Your task to perform on an android device: How much does a 2 bedroom apartment rent for in Boston? Image 0: 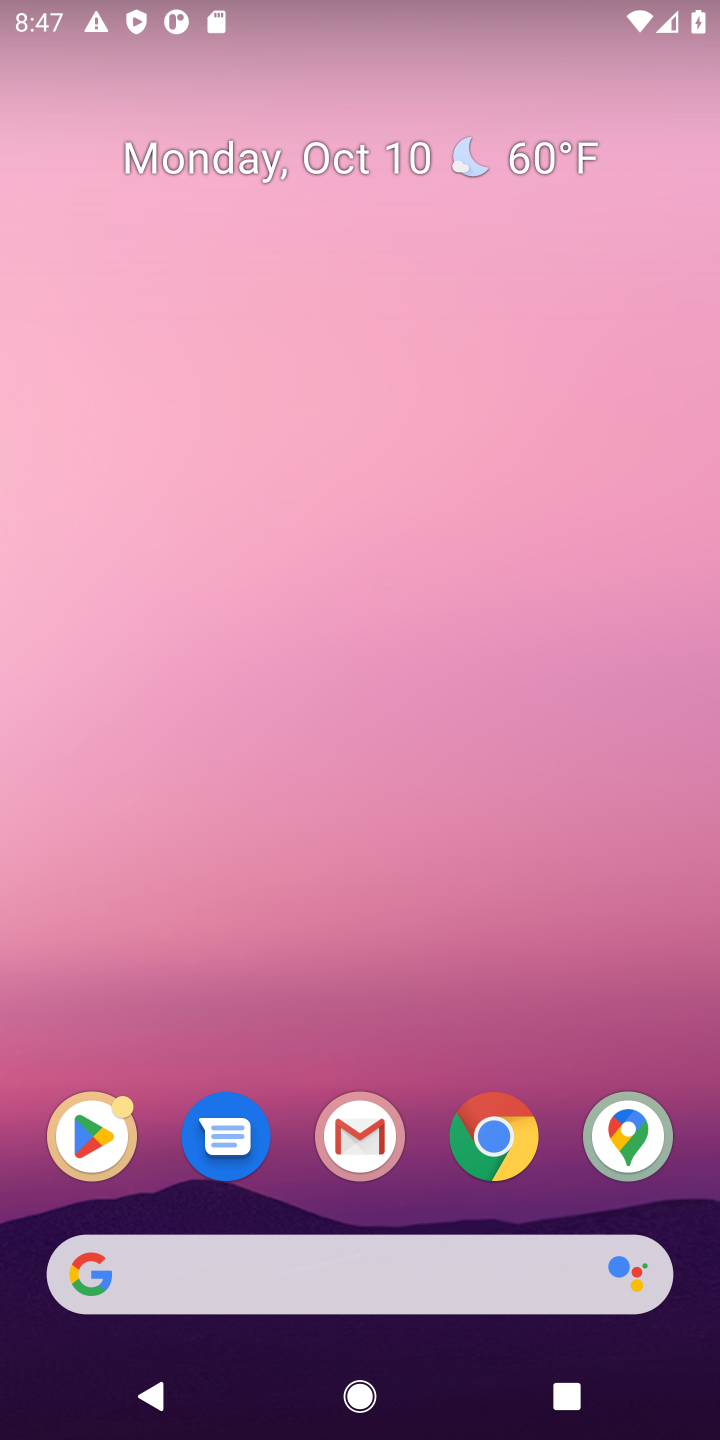
Step 0: click (149, 1275)
Your task to perform on an android device: How much does a 2 bedroom apartment rent for in Boston? Image 1: 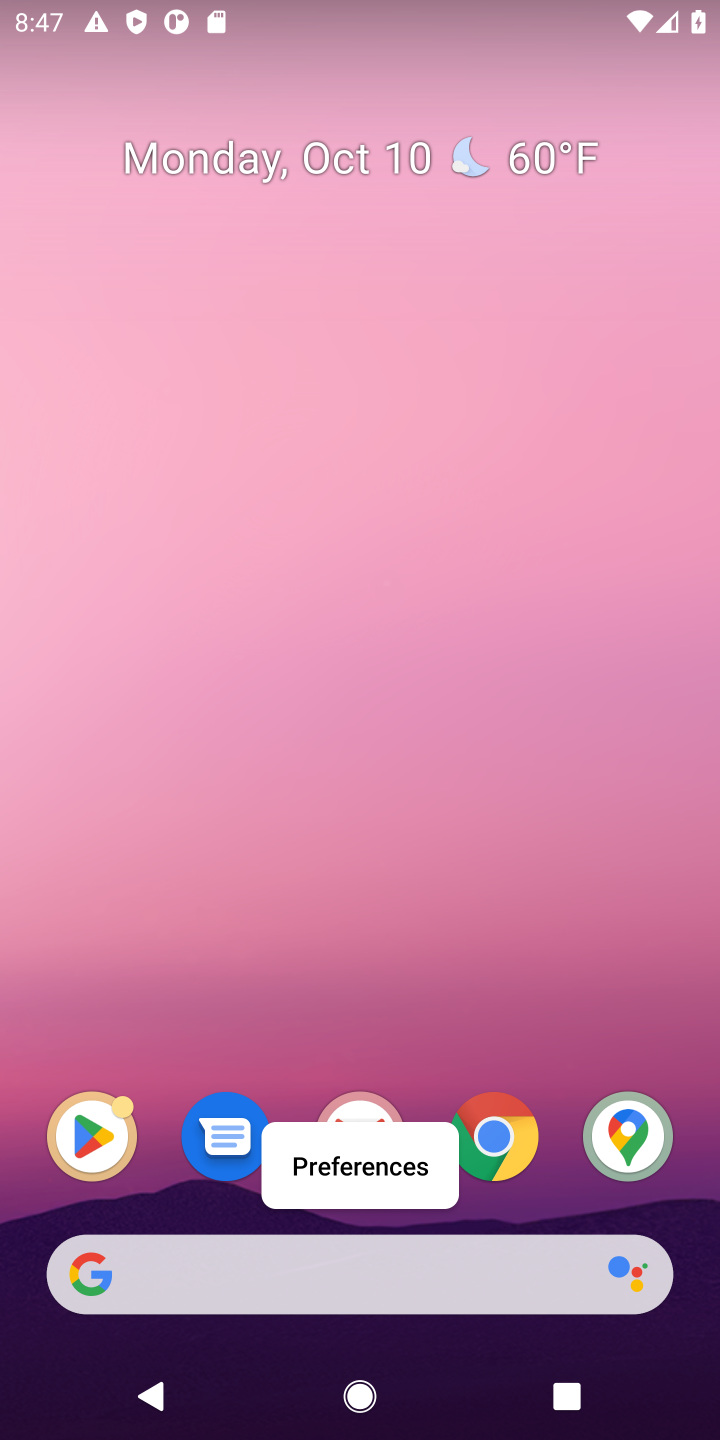
Step 1: click (99, 1265)
Your task to perform on an android device: How much does a 2 bedroom apartment rent for in Boston? Image 2: 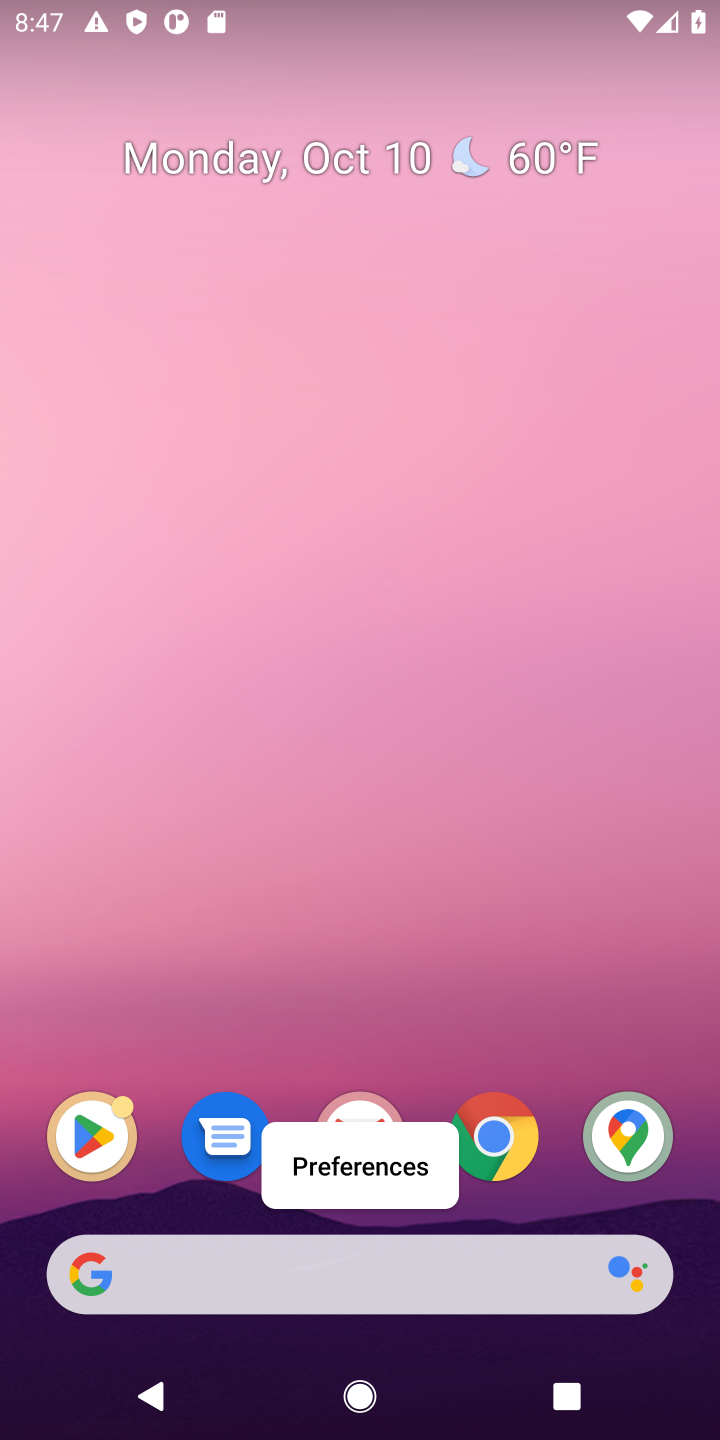
Step 2: click (429, 1285)
Your task to perform on an android device: How much does a 2 bedroom apartment rent for in Boston? Image 3: 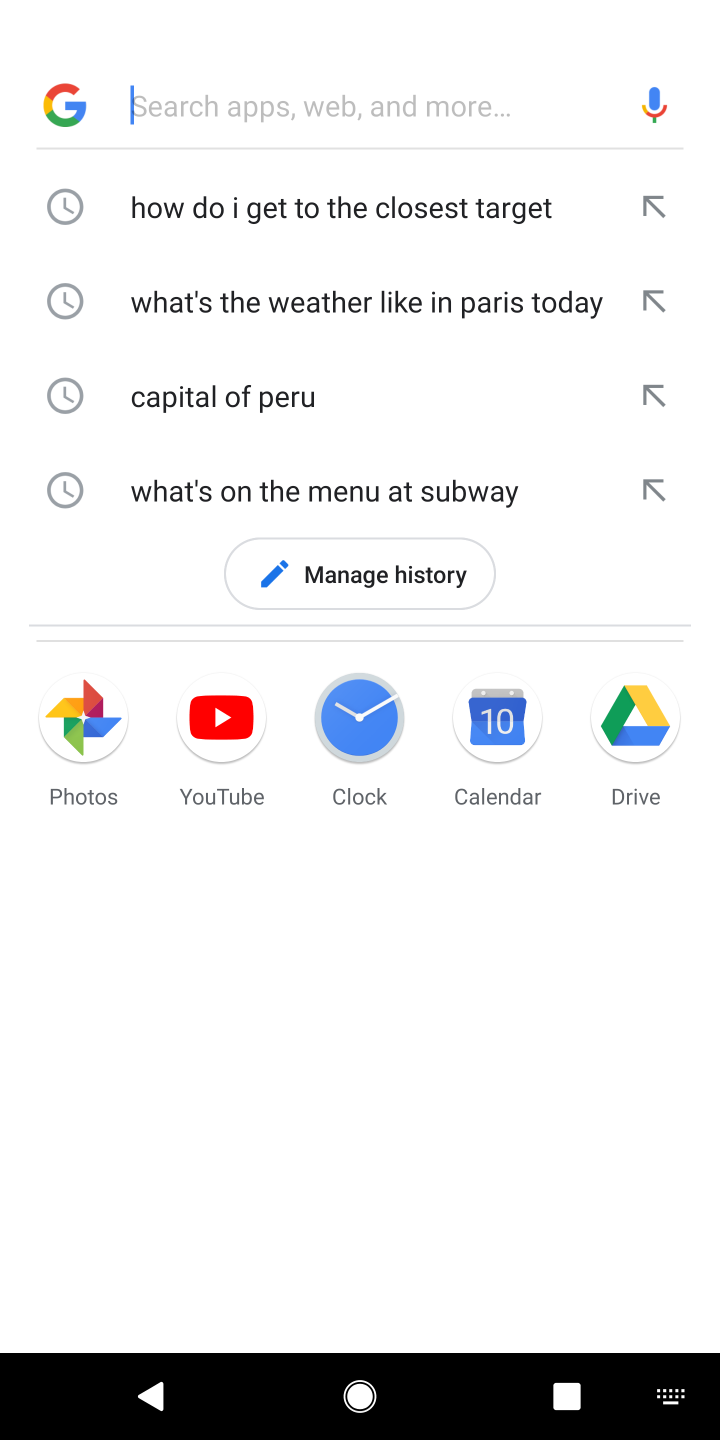
Step 3: type "How much does a 2 bedroom apartment rent for in Boston?"
Your task to perform on an android device: How much does a 2 bedroom apartment rent for in Boston? Image 4: 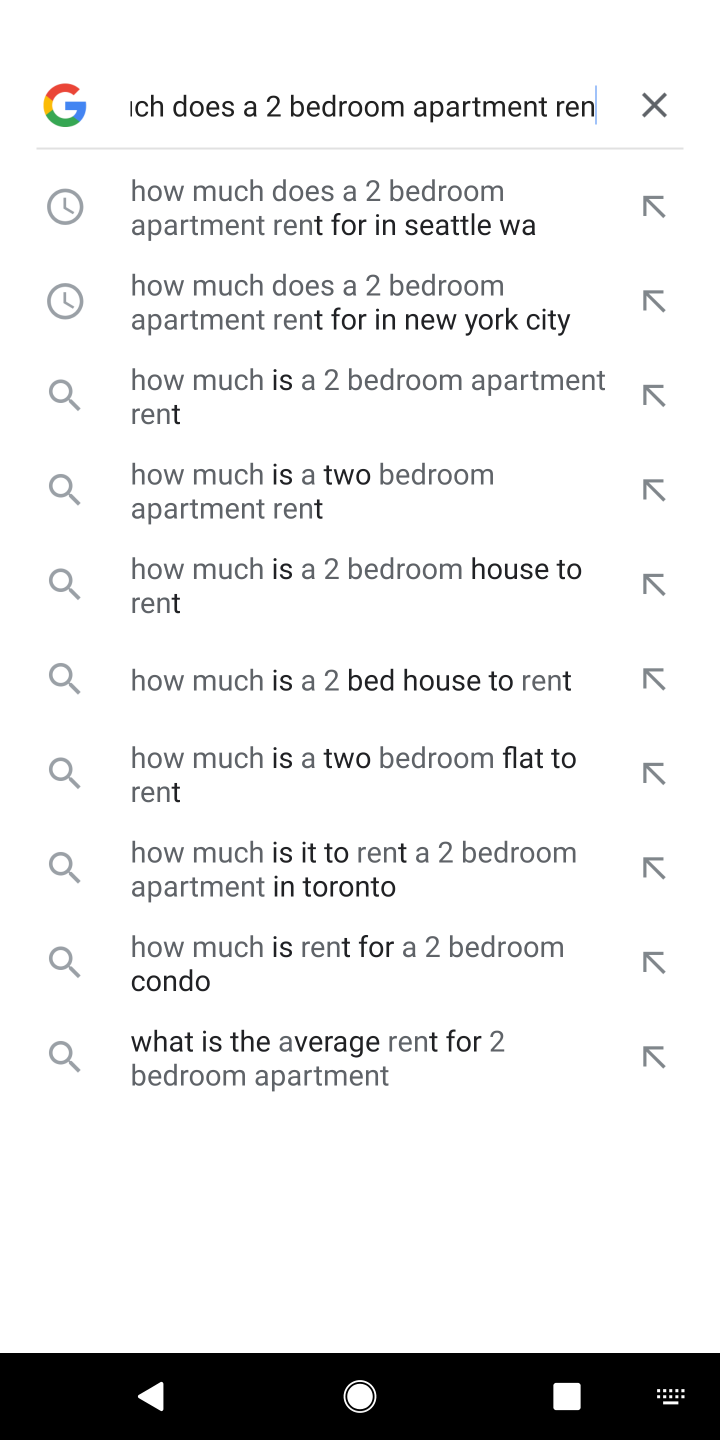
Step 4: type "t for in boston"
Your task to perform on an android device: How much does a 2 bedroom apartment rent for in Boston? Image 5: 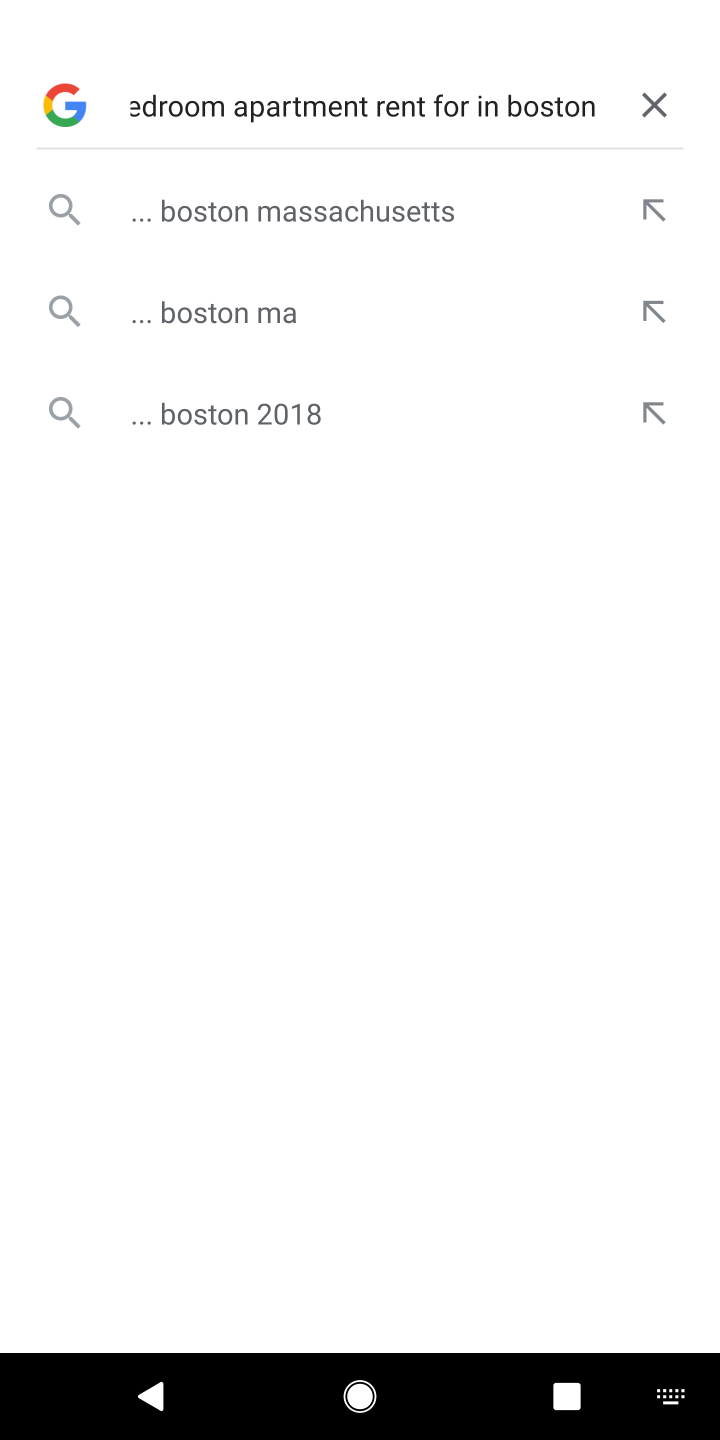
Step 5: click (215, 302)
Your task to perform on an android device: How much does a 2 bedroom apartment rent for in Boston? Image 6: 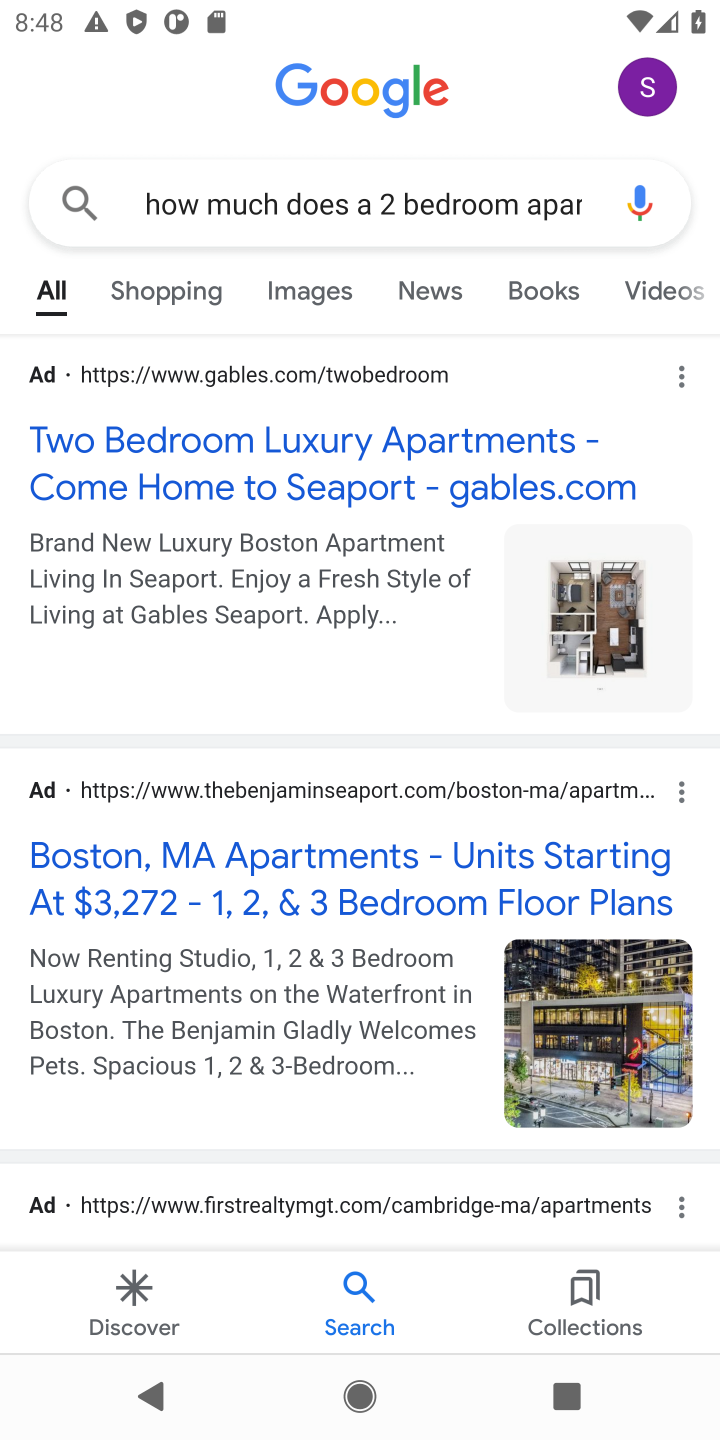
Step 6: click (232, 459)
Your task to perform on an android device: How much does a 2 bedroom apartment rent for in Boston? Image 7: 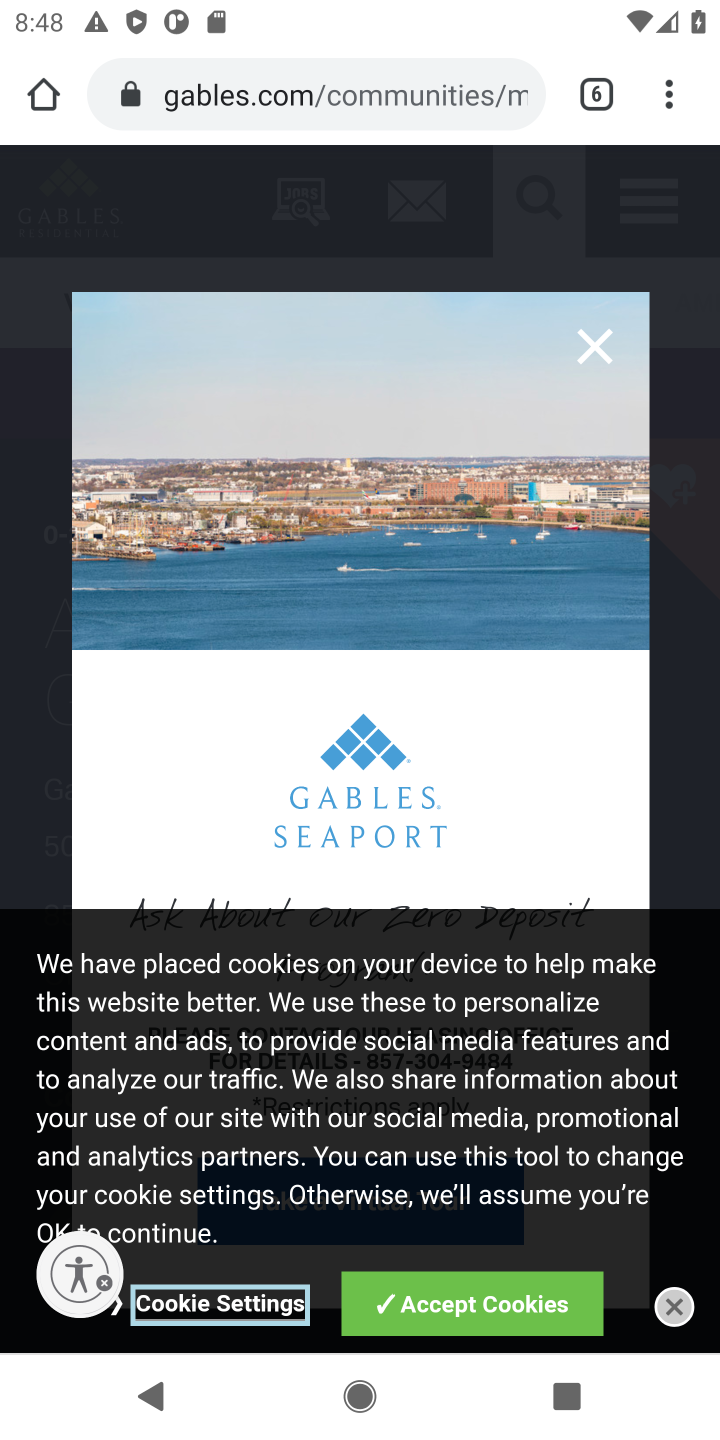
Step 7: click (596, 348)
Your task to perform on an android device: How much does a 2 bedroom apartment rent for in Boston? Image 8: 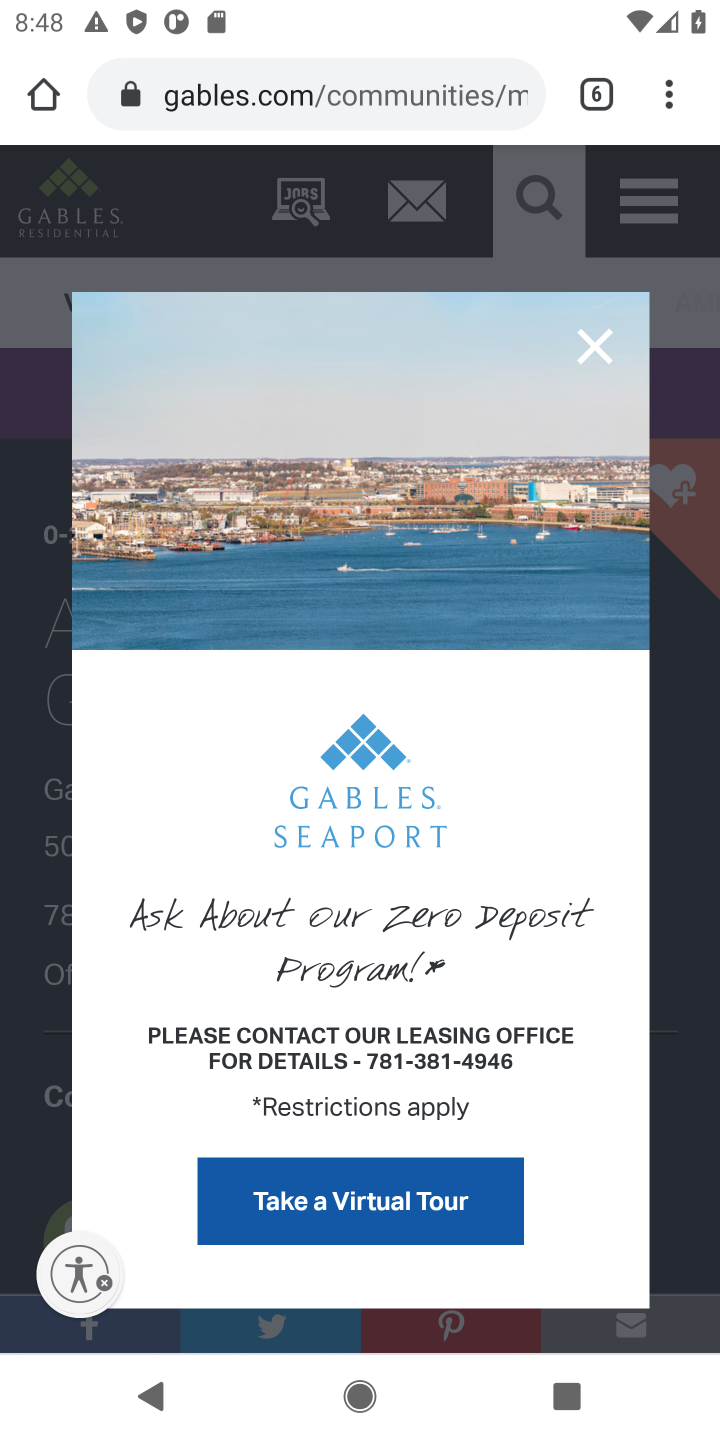
Step 8: click (597, 347)
Your task to perform on an android device: How much does a 2 bedroom apartment rent for in Boston? Image 9: 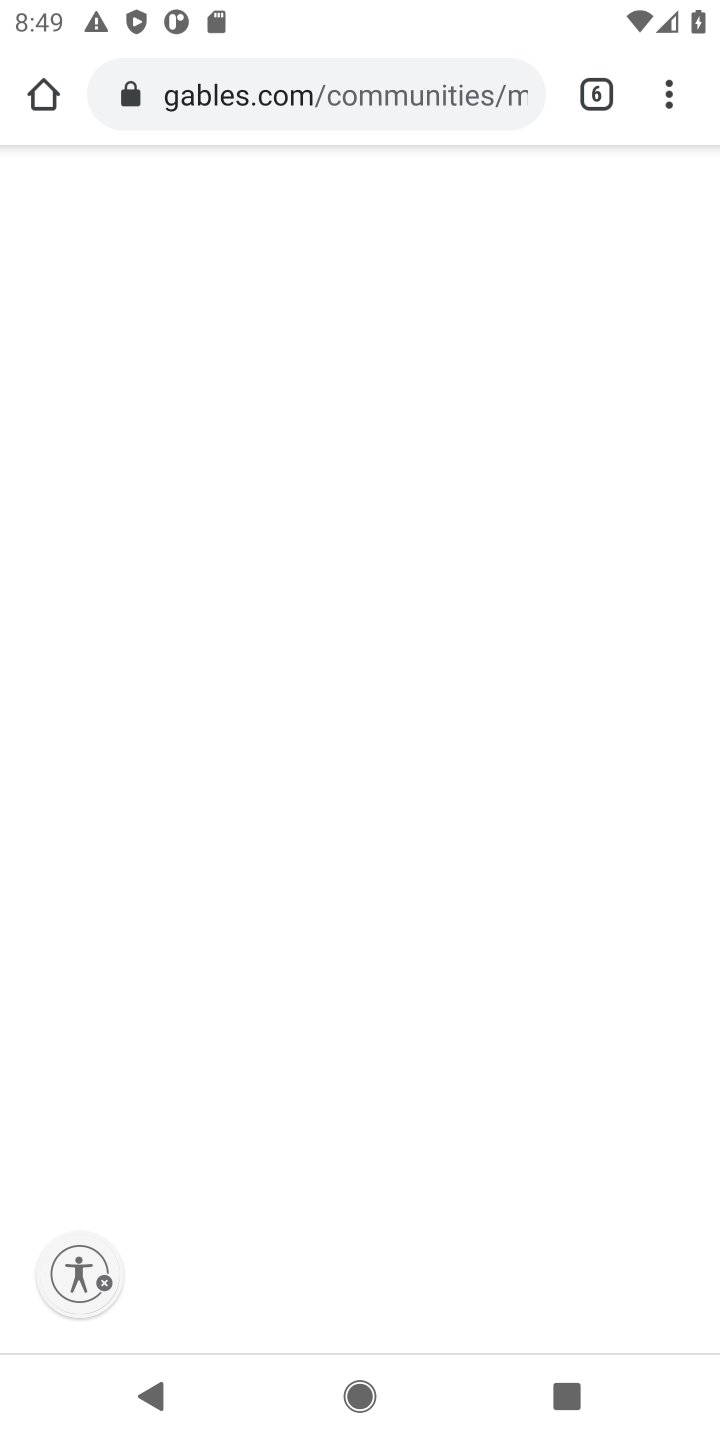
Step 9: click (649, 854)
Your task to perform on an android device: How much does a 2 bedroom apartment rent for in Boston? Image 10: 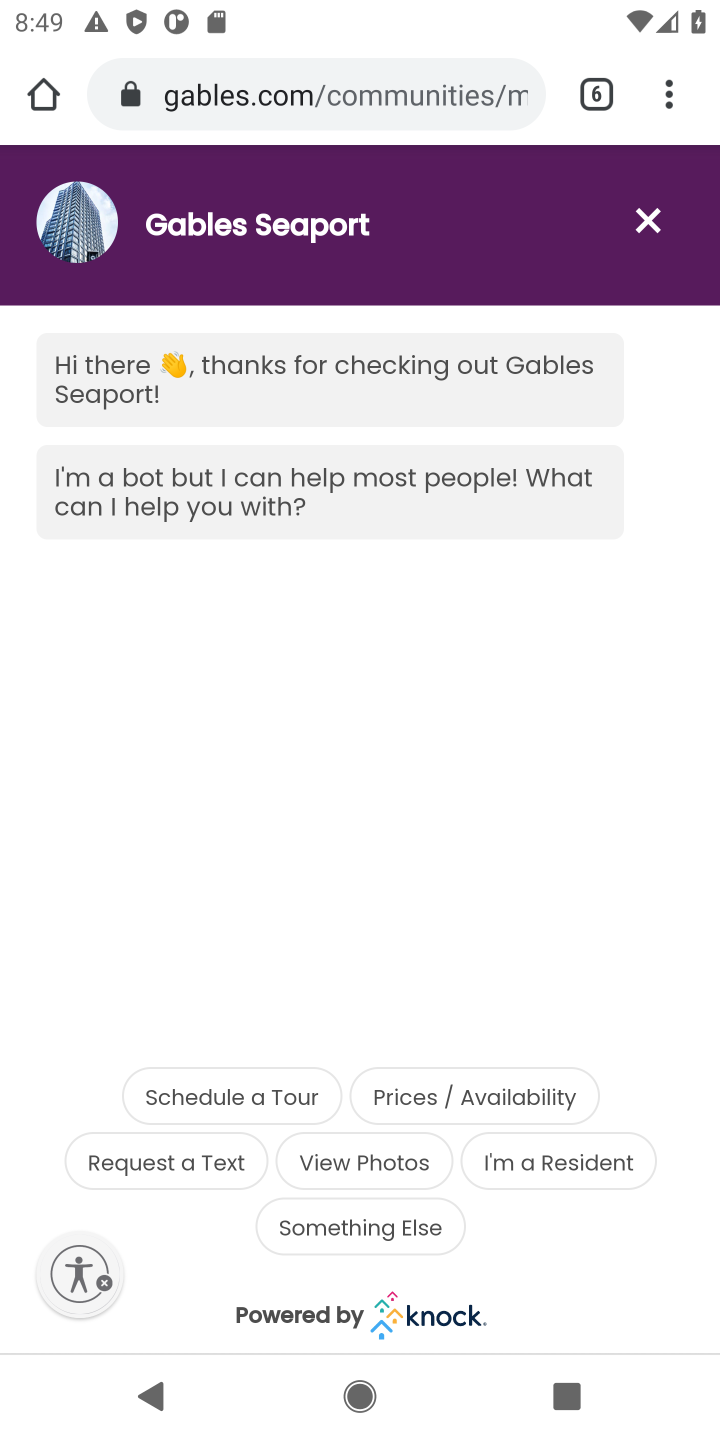
Step 10: click (656, 227)
Your task to perform on an android device: How much does a 2 bedroom apartment rent for in Boston? Image 11: 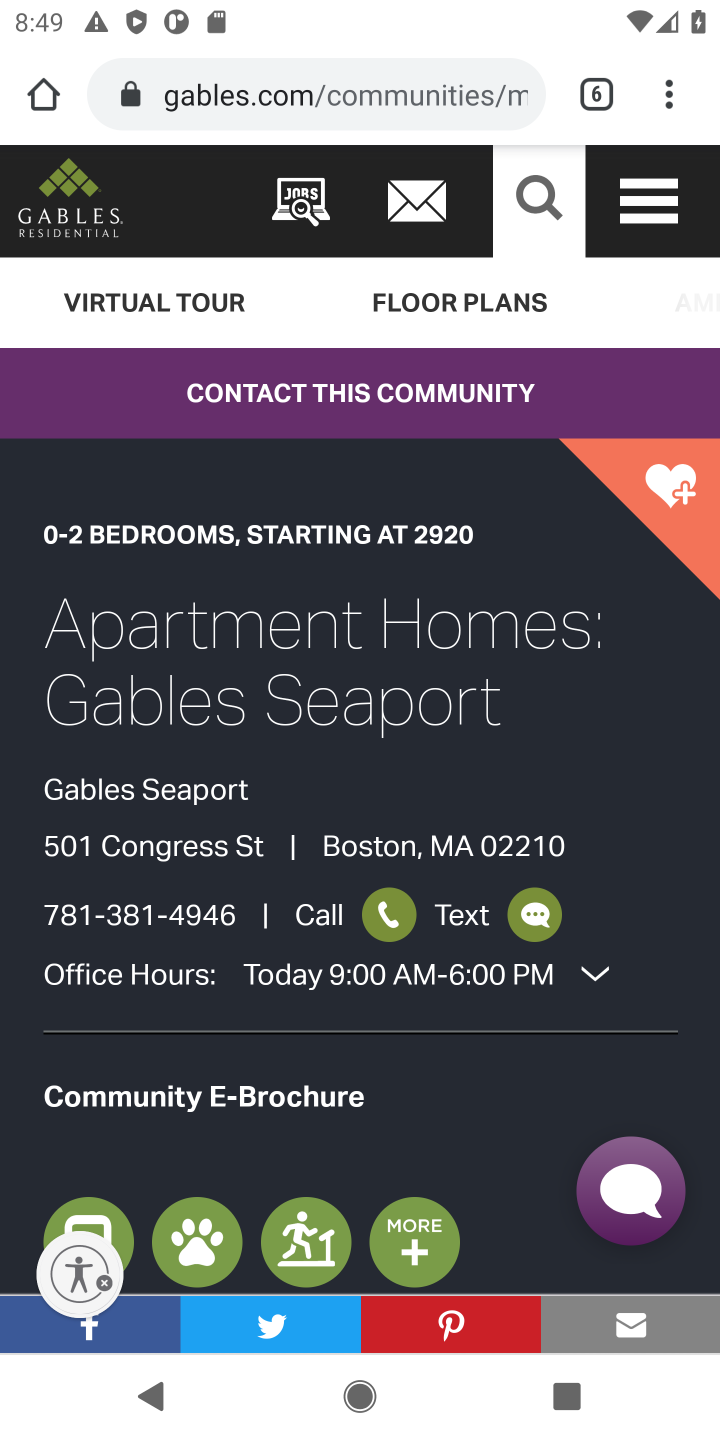
Step 11: task complete